Your task to perform on an android device: turn on priority inbox in the gmail app Image 0: 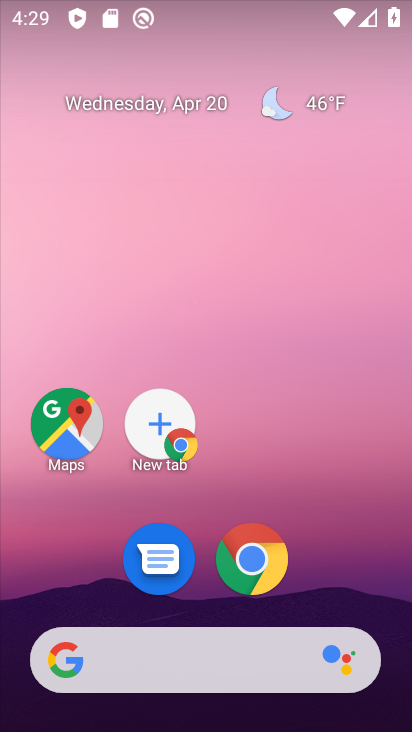
Step 0: drag from (348, 535) to (283, 98)
Your task to perform on an android device: turn on priority inbox in the gmail app Image 1: 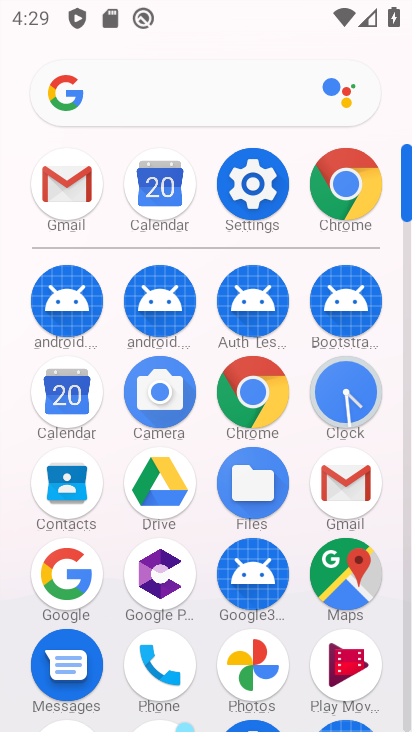
Step 1: click (340, 479)
Your task to perform on an android device: turn on priority inbox in the gmail app Image 2: 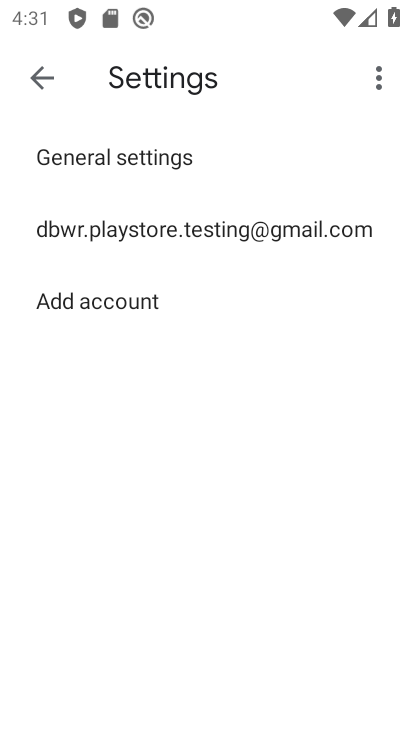
Step 2: click (129, 223)
Your task to perform on an android device: turn on priority inbox in the gmail app Image 3: 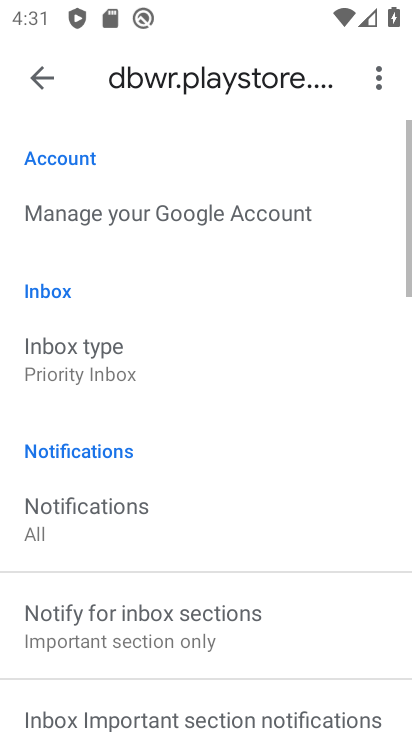
Step 3: click (123, 355)
Your task to perform on an android device: turn on priority inbox in the gmail app Image 4: 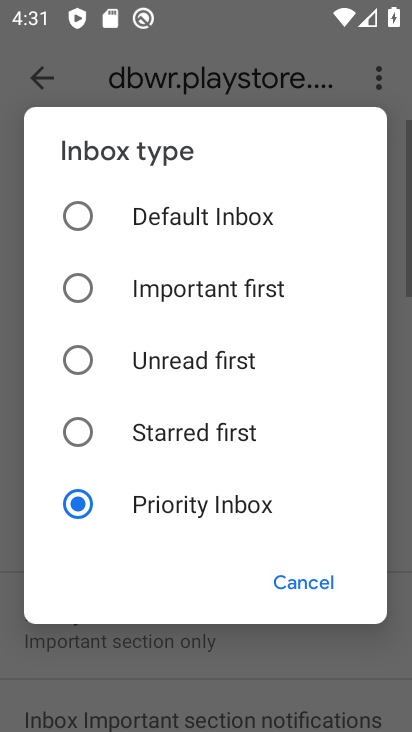
Step 4: task complete